Your task to perform on an android device: all mails in gmail Image 0: 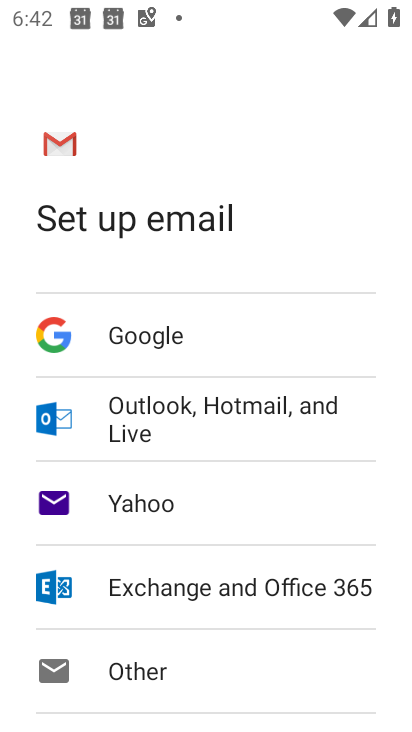
Step 0: press home button
Your task to perform on an android device: all mails in gmail Image 1: 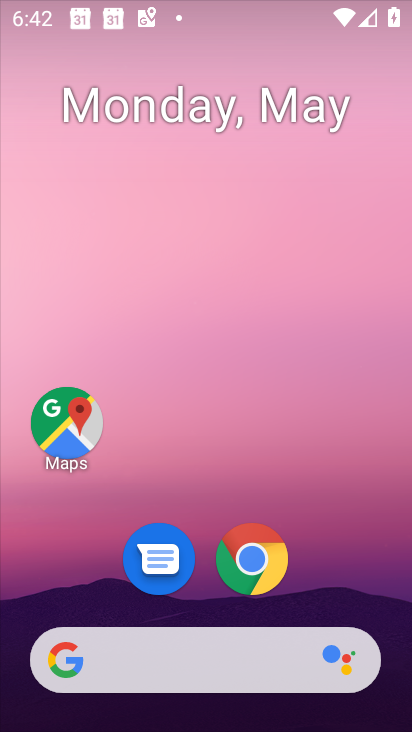
Step 1: drag from (392, 622) to (325, 77)
Your task to perform on an android device: all mails in gmail Image 2: 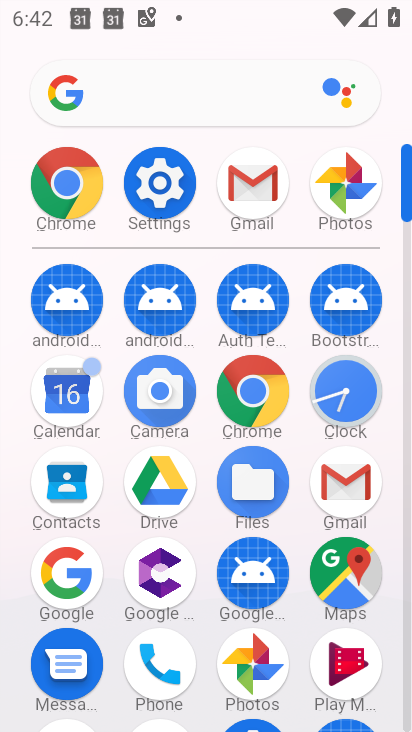
Step 2: click (350, 491)
Your task to perform on an android device: all mails in gmail Image 3: 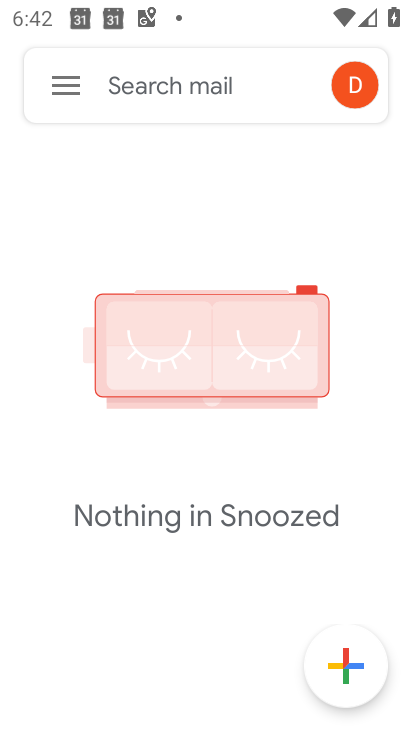
Step 3: click (58, 77)
Your task to perform on an android device: all mails in gmail Image 4: 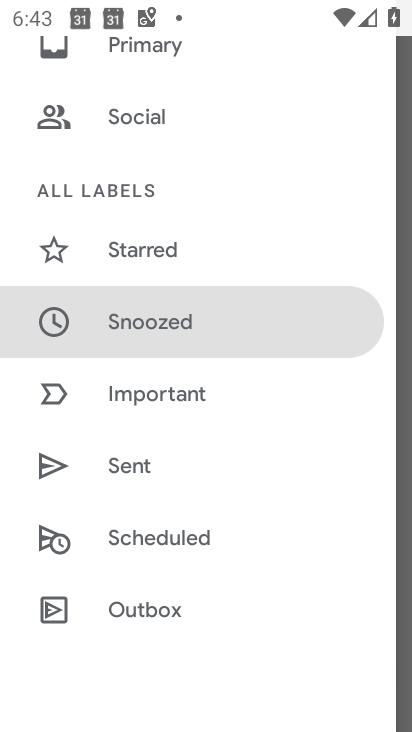
Step 4: drag from (104, 491) to (187, 151)
Your task to perform on an android device: all mails in gmail Image 5: 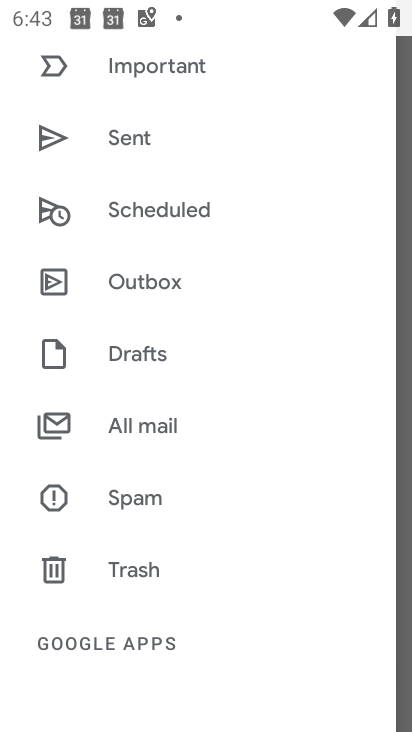
Step 5: click (144, 423)
Your task to perform on an android device: all mails in gmail Image 6: 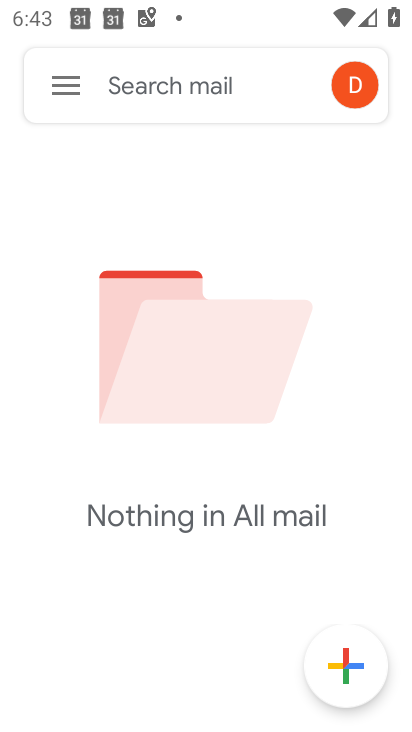
Step 6: task complete